Your task to perform on an android device: delete location history Image 0: 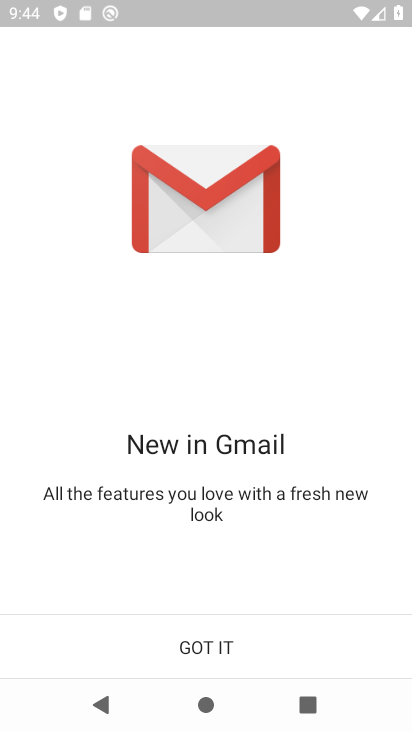
Step 0: press home button
Your task to perform on an android device: delete location history Image 1: 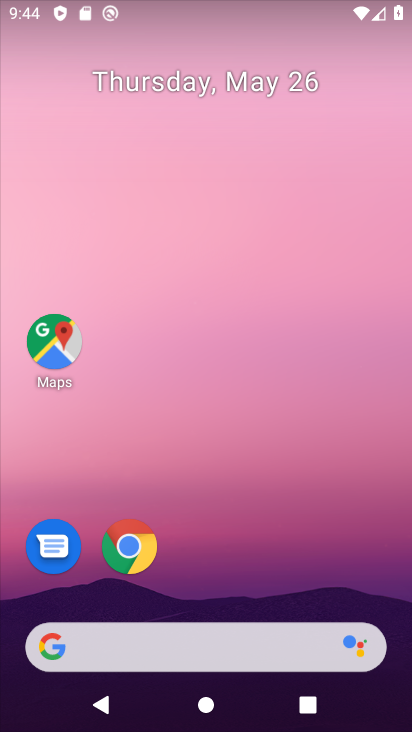
Step 1: click (52, 344)
Your task to perform on an android device: delete location history Image 2: 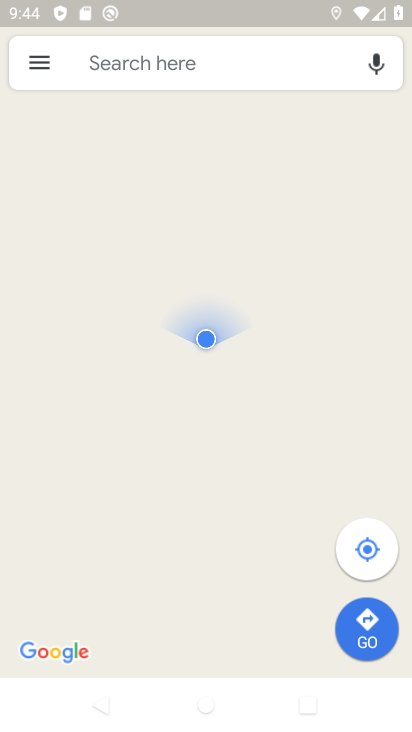
Step 2: click (39, 67)
Your task to perform on an android device: delete location history Image 3: 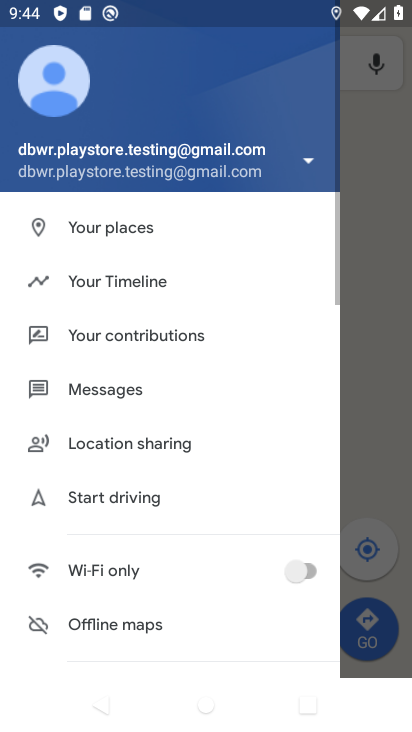
Step 3: drag from (106, 458) to (150, 393)
Your task to perform on an android device: delete location history Image 4: 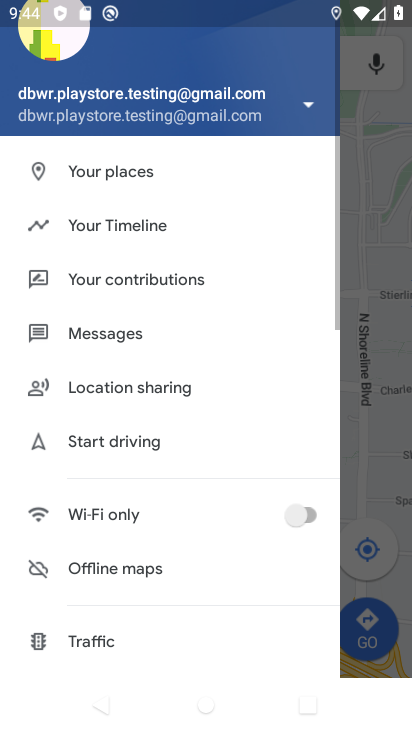
Step 4: drag from (89, 496) to (141, 403)
Your task to perform on an android device: delete location history Image 5: 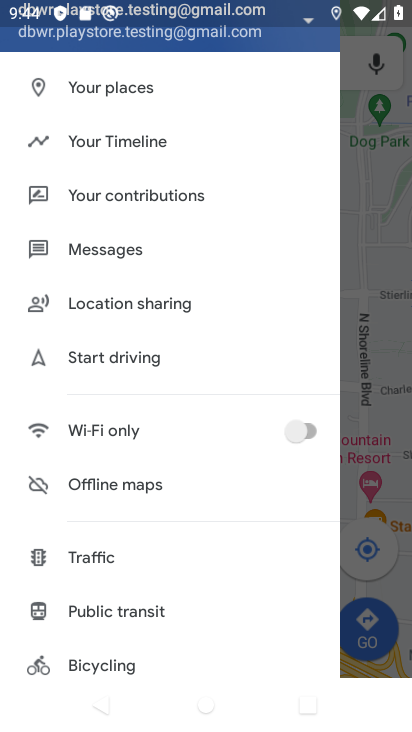
Step 5: drag from (78, 531) to (148, 440)
Your task to perform on an android device: delete location history Image 6: 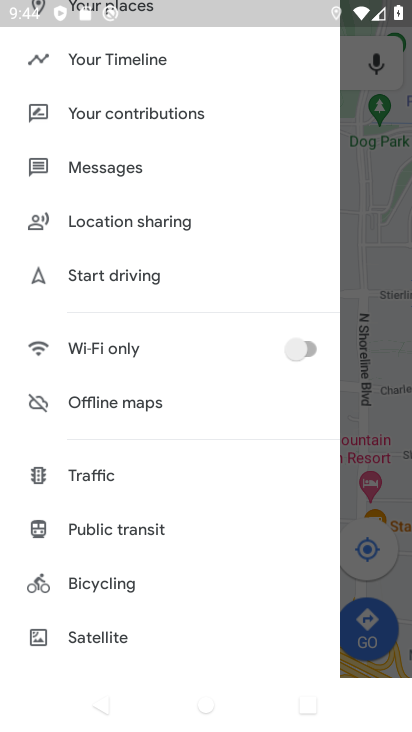
Step 6: drag from (89, 549) to (169, 444)
Your task to perform on an android device: delete location history Image 7: 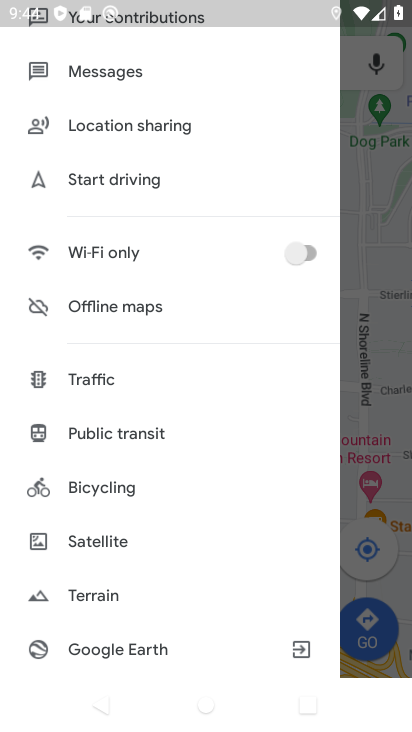
Step 7: drag from (88, 565) to (168, 456)
Your task to perform on an android device: delete location history Image 8: 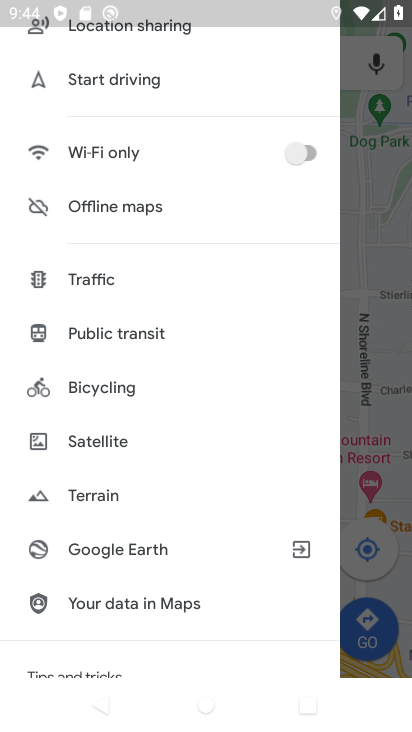
Step 8: drag from (76, 568) to (156, 461)
Your task to perform on an android device: delete location history Image 9: 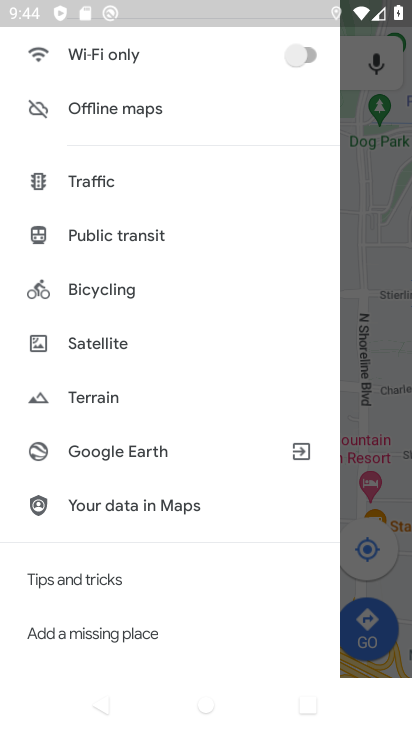
Step 9: drag from (75, 535) to (176, 429)
Your task to perform on an android device: delete location history Image 10: 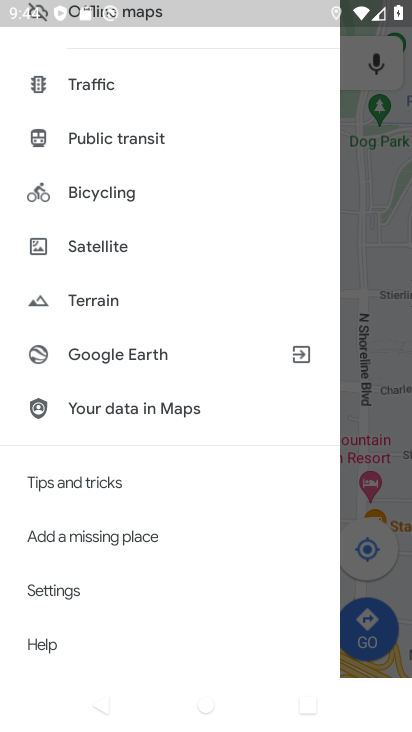
Step 10: click (46, 588)
Your task to perform on an android device: delete location history Image 11: 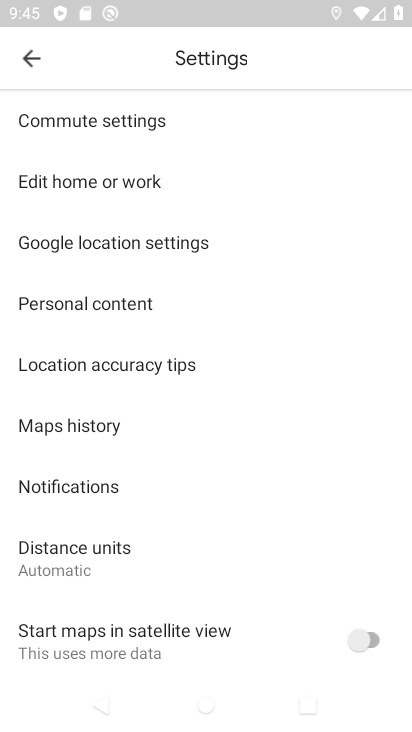
Step 11: click (140, 307)
Your task to perform on an android device: delete location history Image 12: 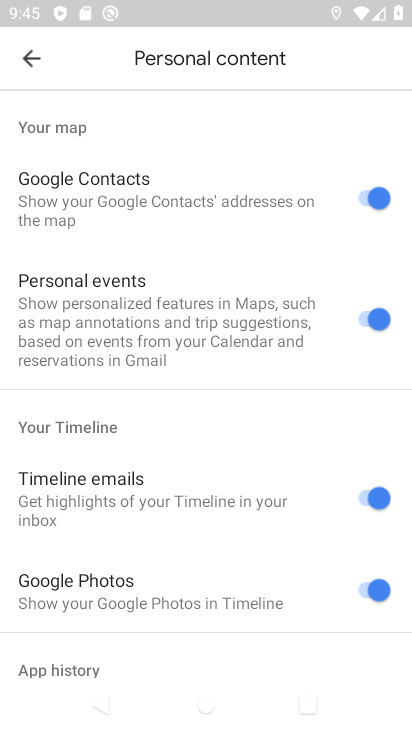
Step 12: drag from (102, 529) to (150, 453)
Your task to perform on an android device: delete location history Image 13: 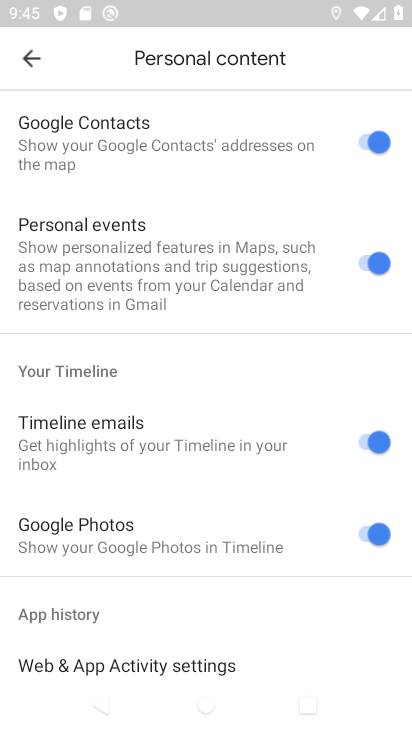
Step 13: drag from (57, 577) to (126, 480)
Your task to perform on an android device: delete location history Image 14: 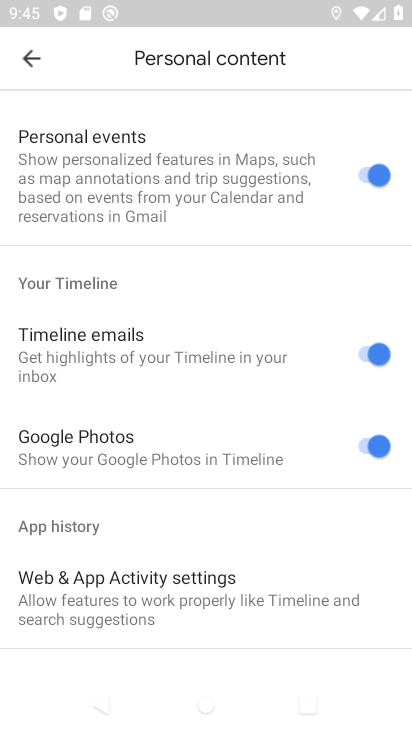
Step 14: drag from (67, 544) to (142, 465)
Your task to perform on an android device: delete location history Image 15: 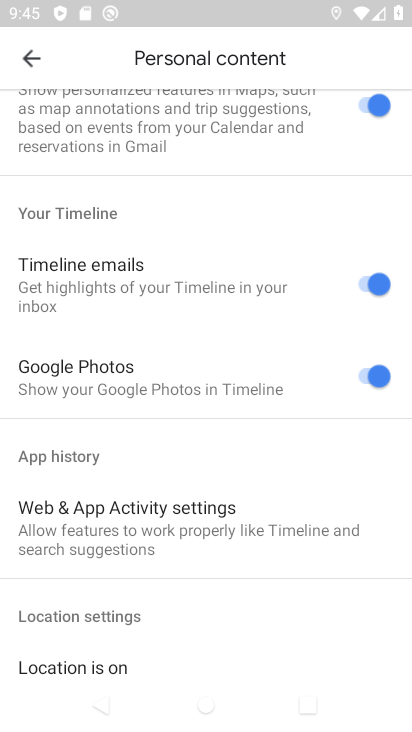
Step 15: drag from (54, 573) to (128, 489)
Your task to perform on an android device: delete location history Image 16: 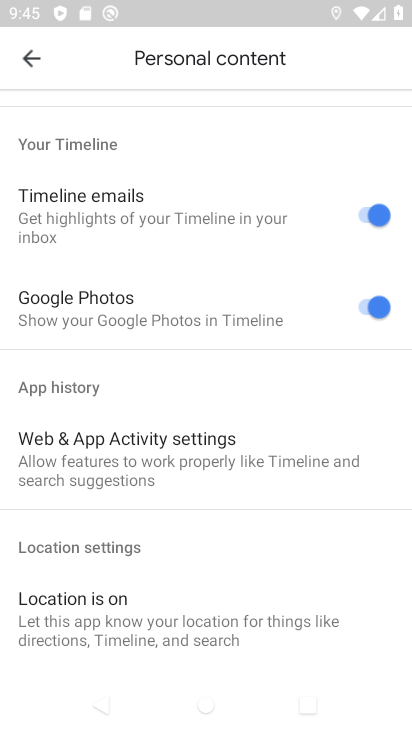
Step 16: drag from (67, 578) to (159, 472)
Your task to perform on an android device: delete location history Image 17: 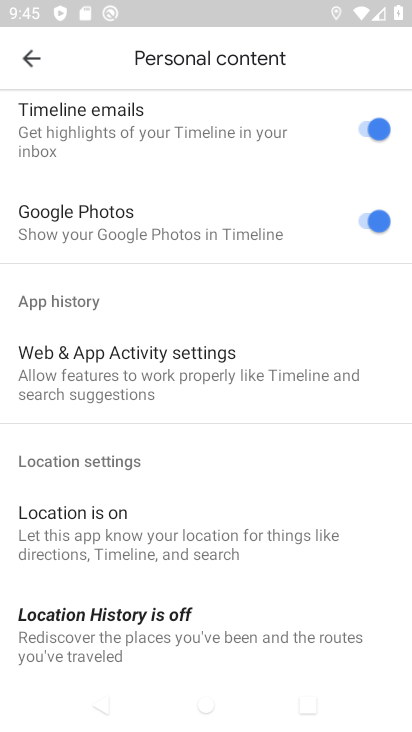
Step 17: drag from (103, 578) to (197, 474)
Your task to perform on an android device: delete location history Image 18: 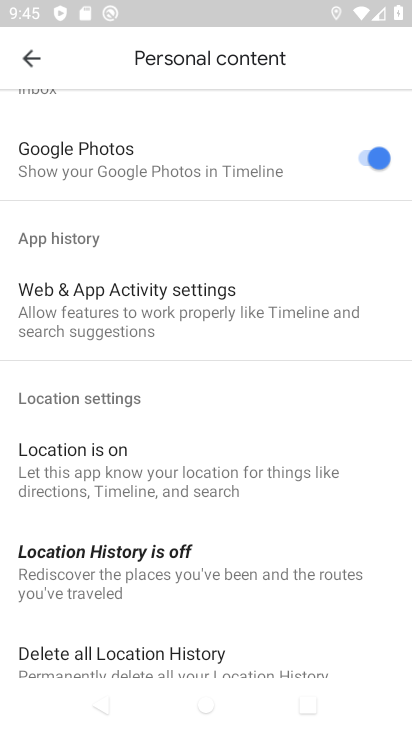
Step 18: drag from (86, 599) to (188, 481)
Your task to perform on an android device: delete location history Image 19: 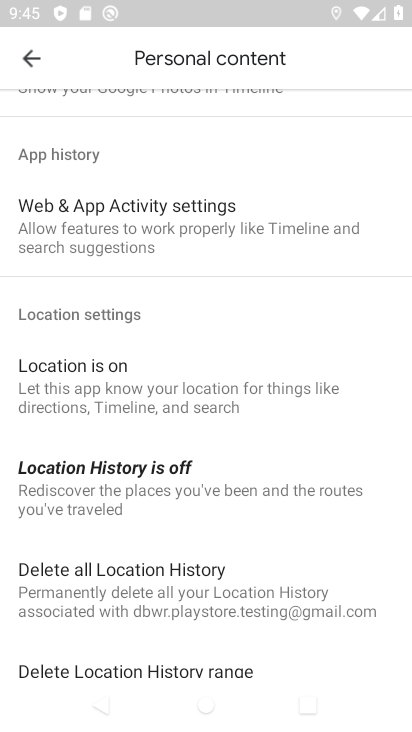
Step 19: drag from (162, 542) to (229, 392)
Your task to perform on an android device: delete location history Image 20: 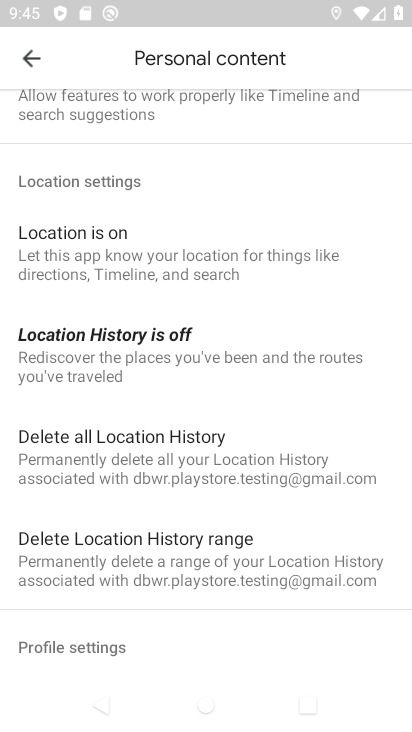
Step 20: click (175, 442)
Your task to perform on an android device: delete location history Image 21: 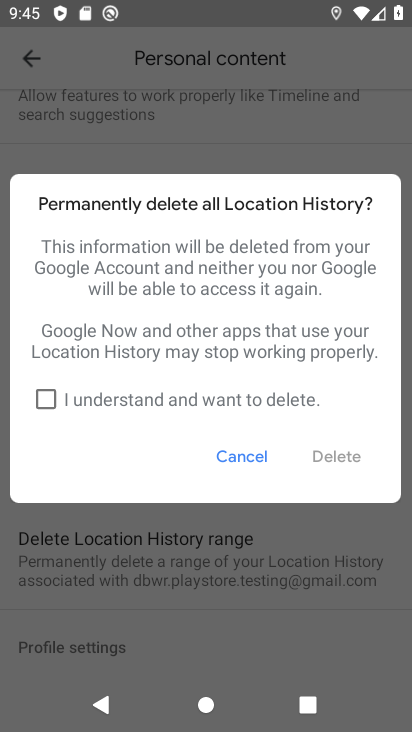
Step 21: click (40, 393)
Your task to perform on an android device: delete location history Image 22: 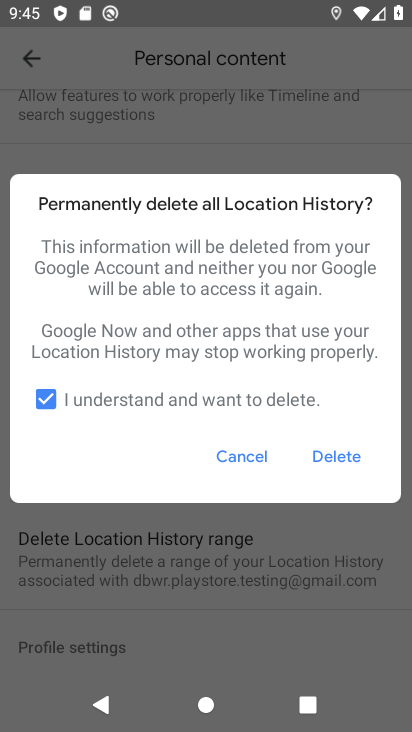
Step 22: click (344, 453)
Your task to perform on an android device: delete location history Image 23: 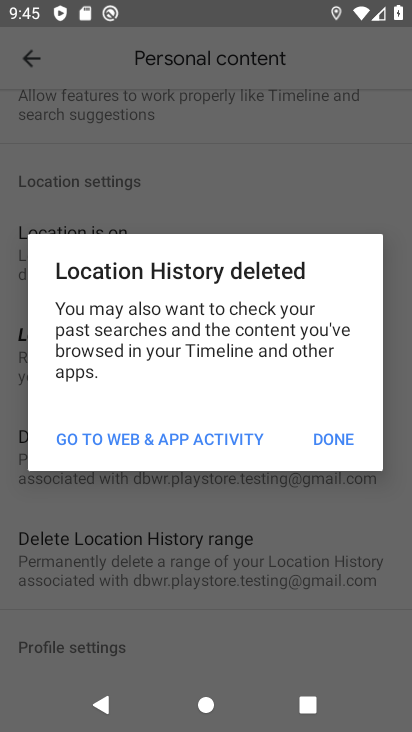
Step 23: click (334, 438)
Your task to perform on an android device: delete location history Image 24: 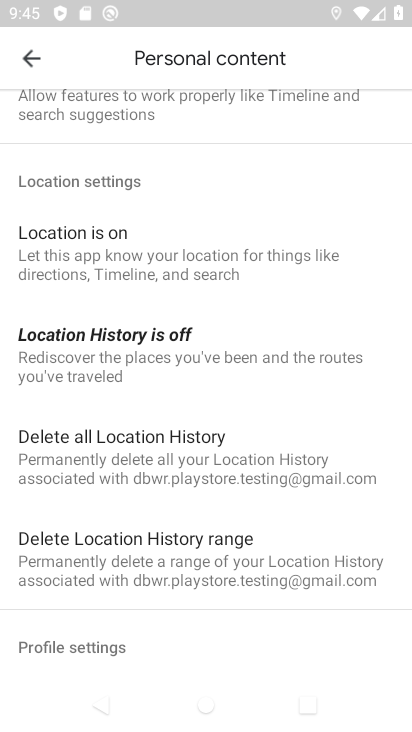
Step 24: task complete